Your task to perform on an android device: toggle sleep mode Image 0: 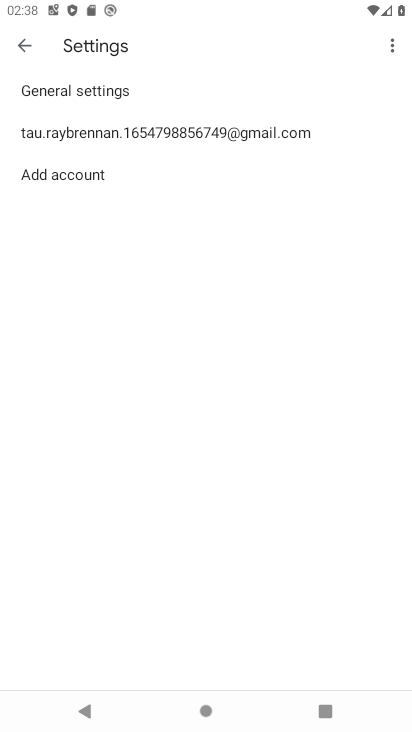
Step 0: press home button
Your task to perform on an android device: toggle sleep mode Image 1: 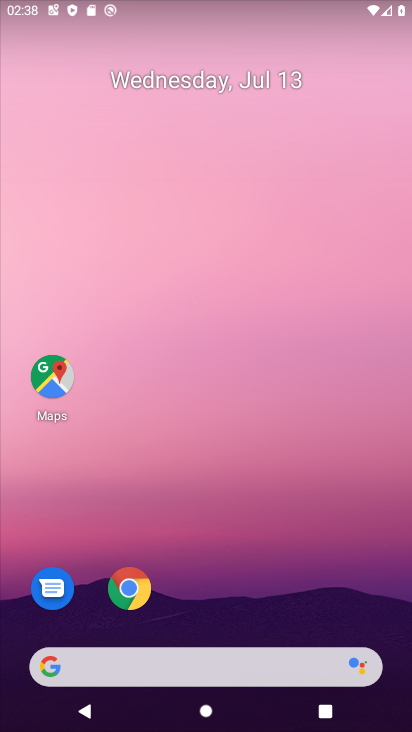
Step 1: drag from (385, 671) to (263, 158)
Your task to perform on an android device: toggle sleep mode Image 2: 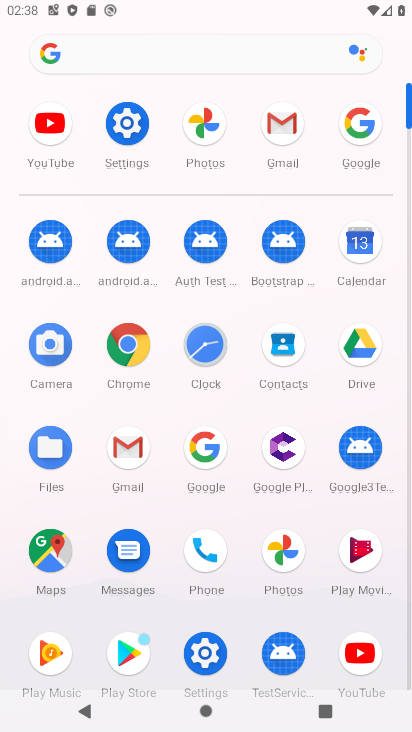
Step 2: click (125, 132)
Your task to perform on an android device: toggle sleep mode Image 3: 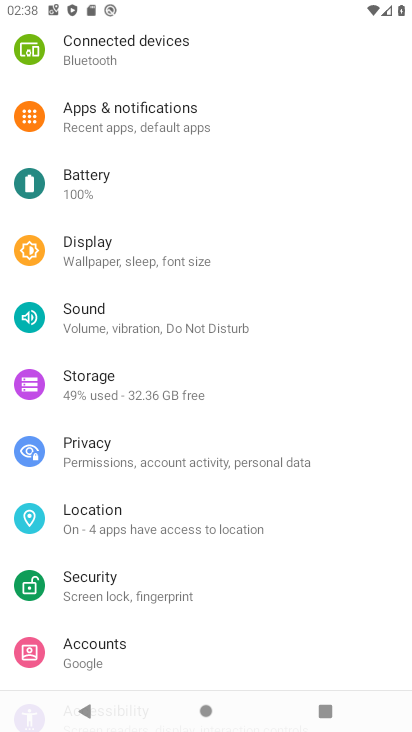
Step 3: click (96, 260)
Your task to perform on an android device: toggle sleep mode Image 4: 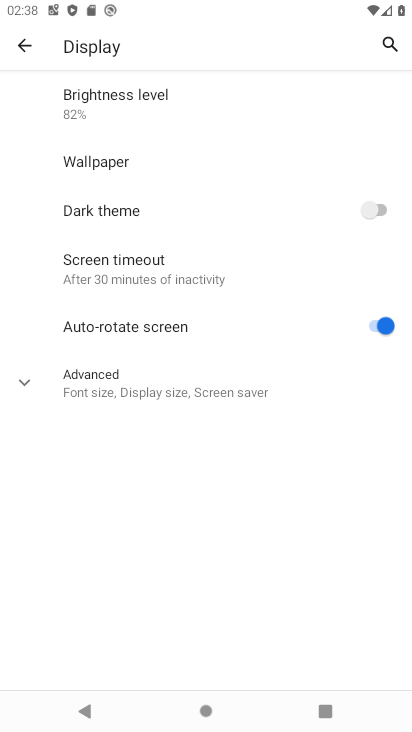
Step 4: click (120, 275)
Your task to perform on an android device: toggle sleep mode Image 5: 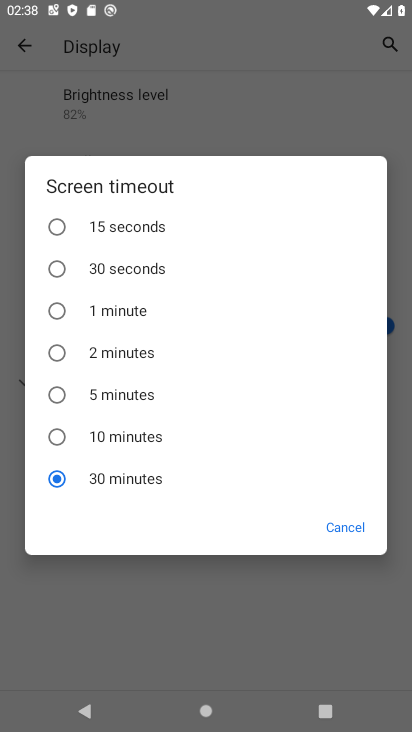
Step 5: click (52, 390)
Your task to perform on an android device: toggle sleep mode Image 6: 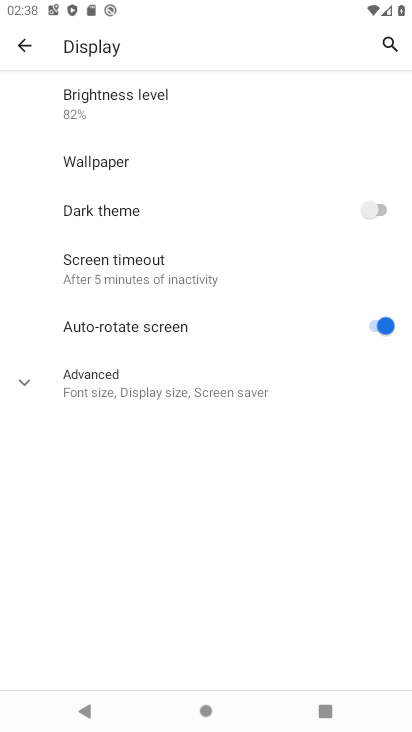
Step 6: task complete